Your task to perform on an android device: turn on translation in the chrome app Image 0: 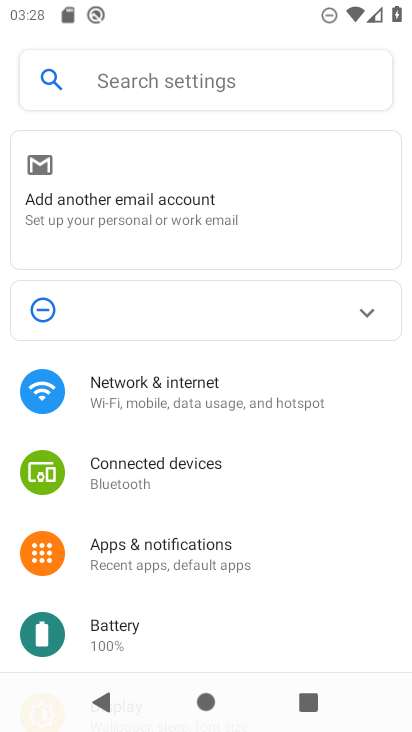
Step 0: press home button
Your task to perform on an android device: turn on translation in the chrome app Image 1: 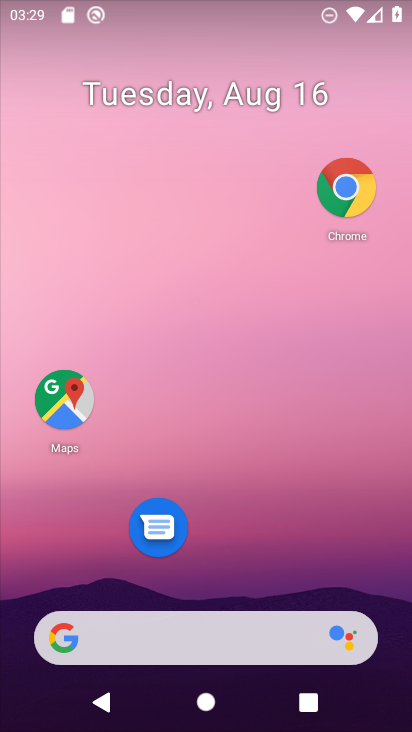
Step 1: drag from (251, 433) to (296, 75)
Your task to perform on an android device: turn on translation in the chrome app Image 2: 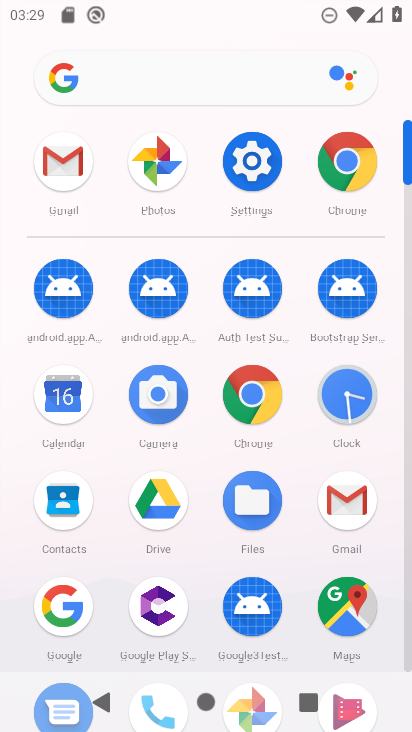
Step 2: click (340, 155)
Your task to perform on an android device: turn on translation in the chrome app Image 3: 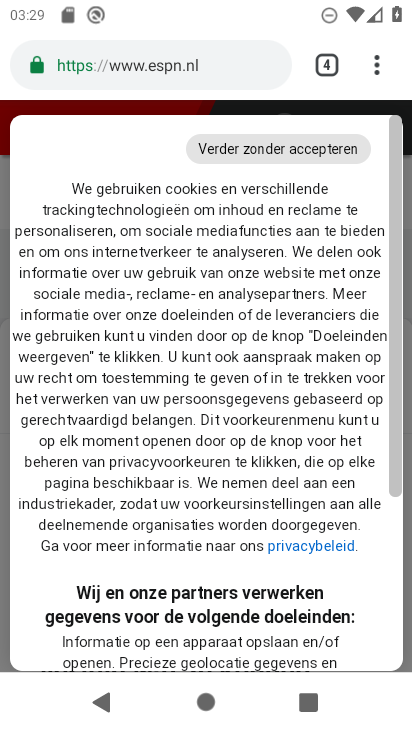
Step 3: drag from (200, 597) to (158, 127)
Your task to perform on an android device: turn on translation in the chrome app Image 4: 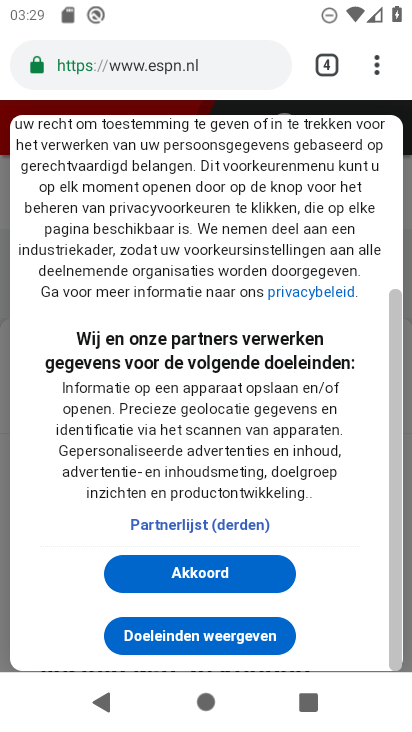
Step 4: click (195, 570)
Your task to perform on an android device: turn on translation in the chrome app Image 5: 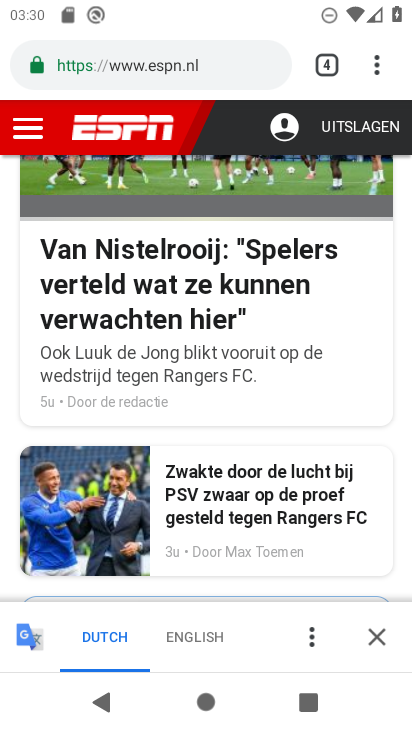
Step 5: click (371, 61)
Your task to perform on an android device: turn on translation in the chrome app Image 6: 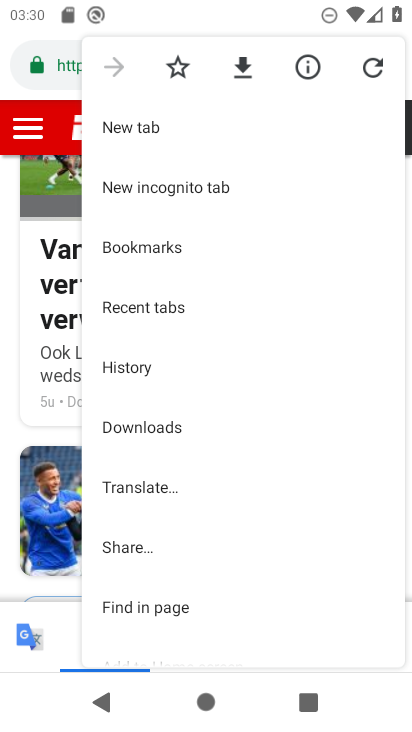
Step 6: drag from (208, 584) to (264, 203)
Your task to perform on an android device: turn on translation in the chrome app Image 7: 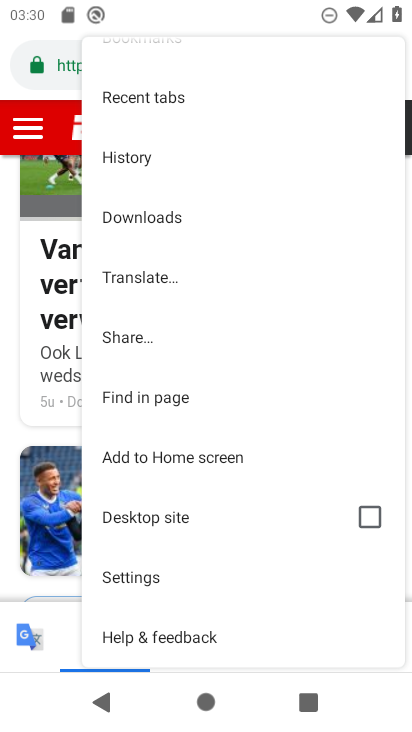
Step 7: click (165, 577)
Your task to perform on an android device: turn on translation in the chrome app Image 8: 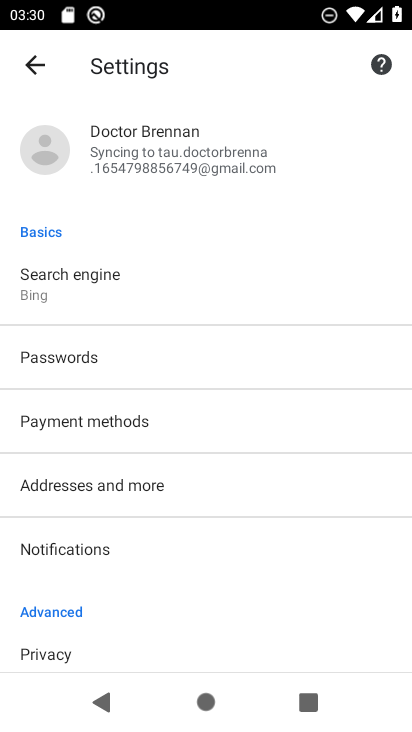
Step 8: drag from (141, 635) to (175, 194)
Your task to perform on an android device: turn on translation in the chrome app Image 9: 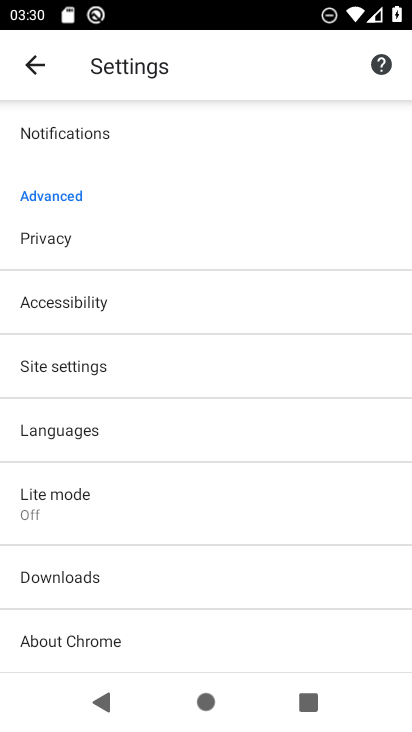
Step 9: drag from (143, 633) to (151, 309)
Your task to perform on an android device: turn on translation in the chrome app Image 10: 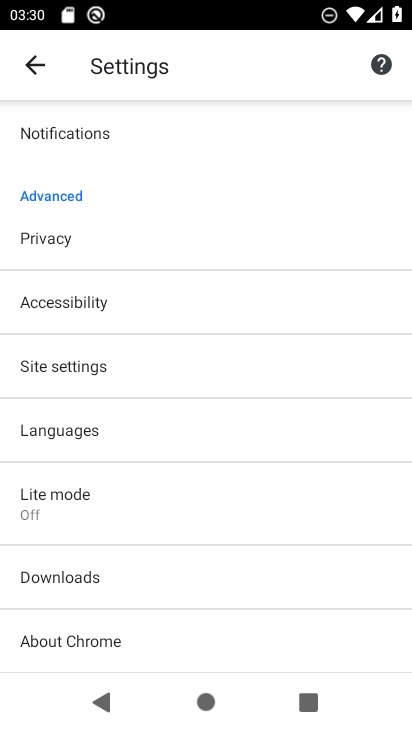
Step 10: click (106, 433)
Your task to perform on an android device: turn on translation in the chrome app Image 11: 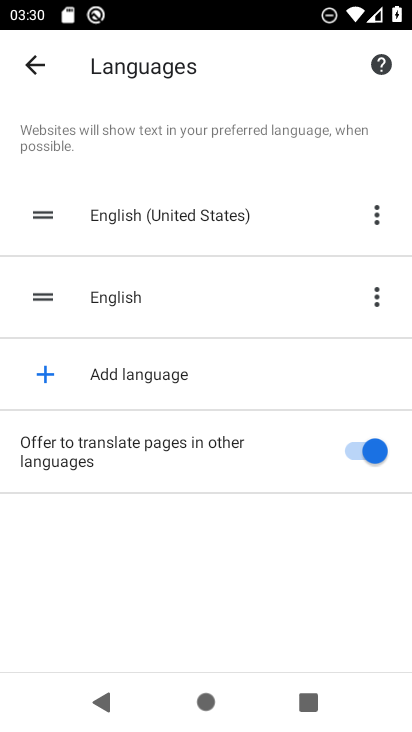
Step 11: task complete